Your task to perform on an android device: show emergency info Image 0: 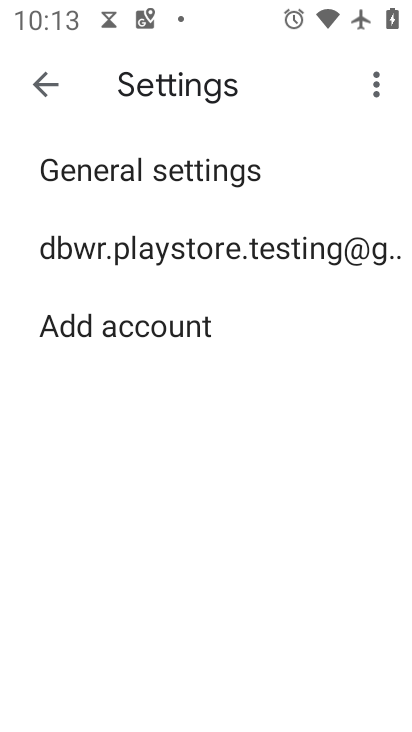
Step 0: press home button
Your task to perform on an android device: show emergency info Image 1: 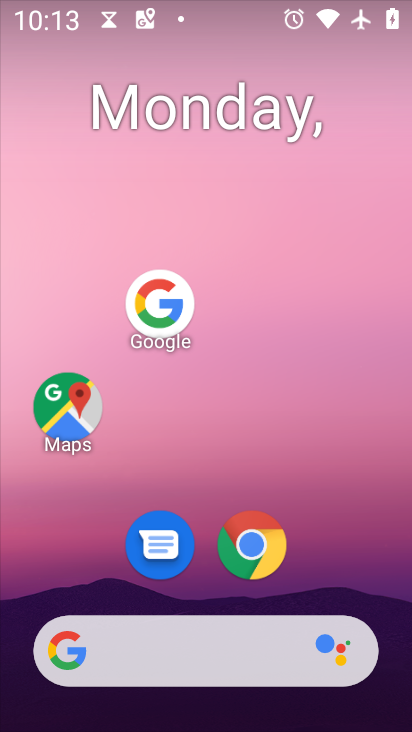
Step 1: drag from (165, 672) to (274, 66)
Your task to perform on an android device: show emergency info Image 2: 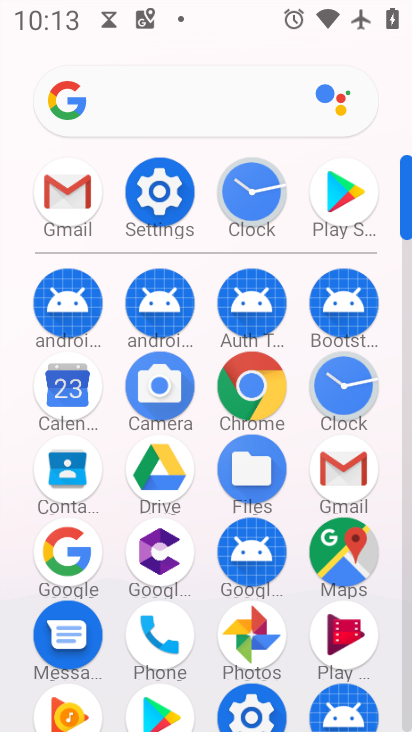
Step 2: click (166, 205)
Your task to perform on an android device: show emergency info Image 3: 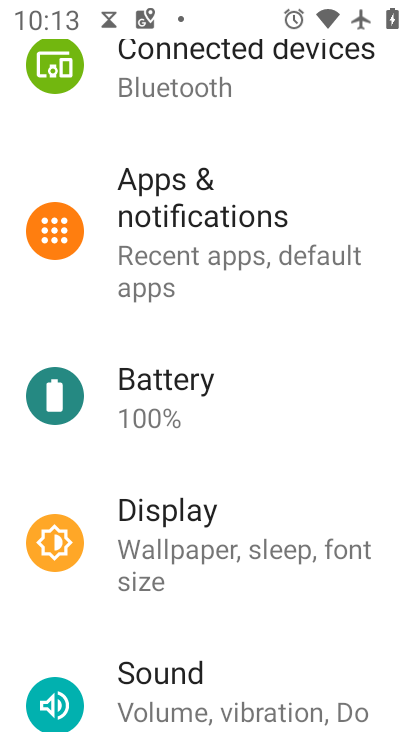
Step 3: drag from (282, 680) to (316, 49)
Your task to perform on an android device: show emergency info Image 4: 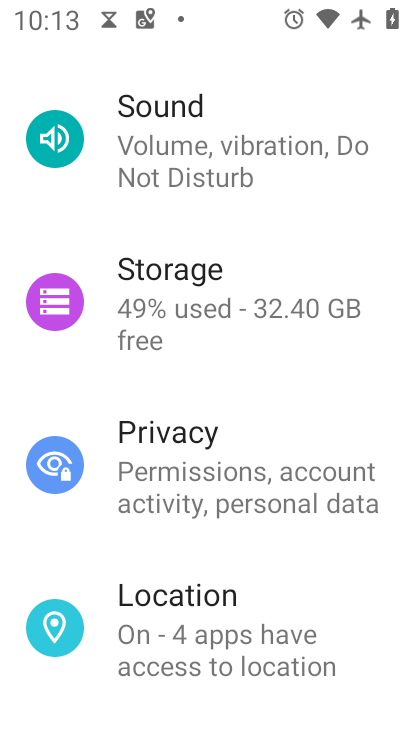
Step 4: drag from (257, 691) to (353, 166)
Your task to perform on an android device: show emergency info Image 5: 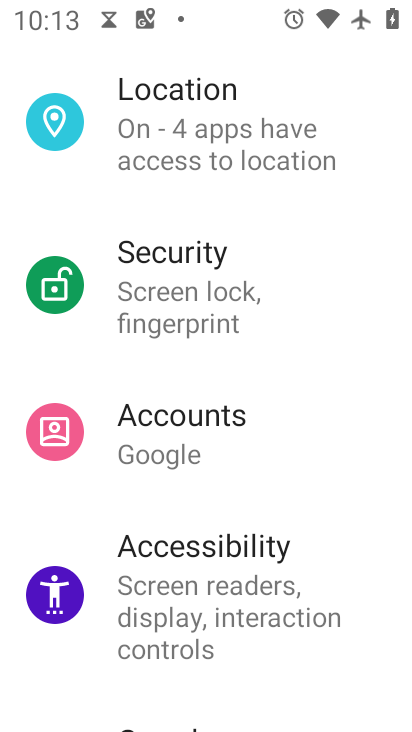
Step 5: drag from (293, 662) to (359, 157)
Your task to perform on an android device: show emergency info Image 6: 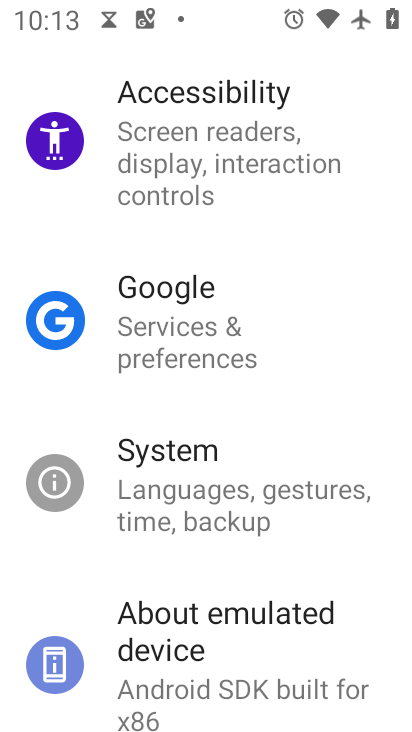
Step 6: drag from (219, 574) to (300, 343)
Your task to perform on an android device: show emergency info Image 7: 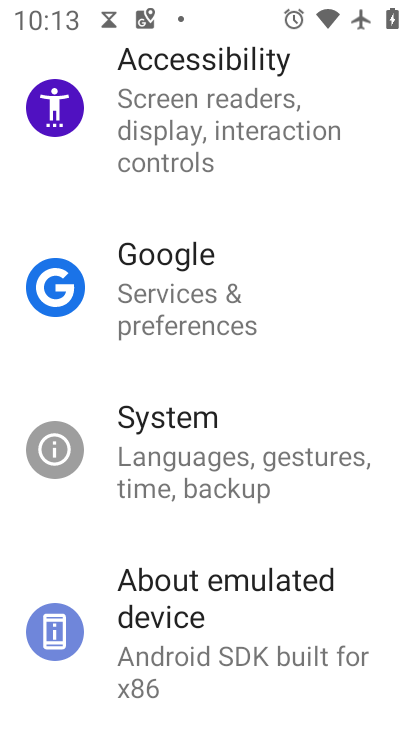
Step 7: click (199, 631)
Your task to perform on an android device: show emergency info Image 8: 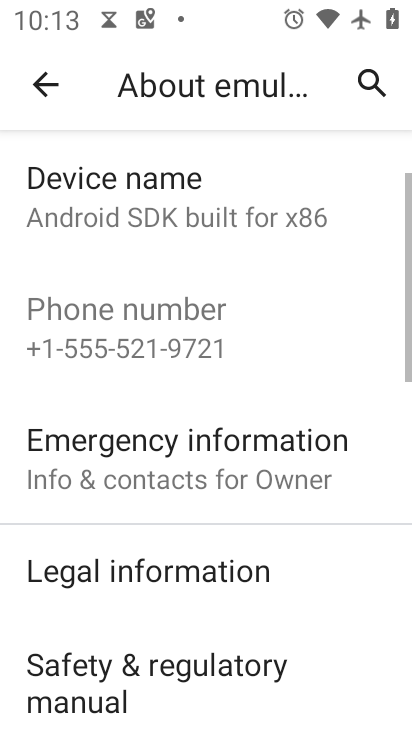
Step 8: click (209, 452)
Your task to perform on an android device: show emergency info Image 9: 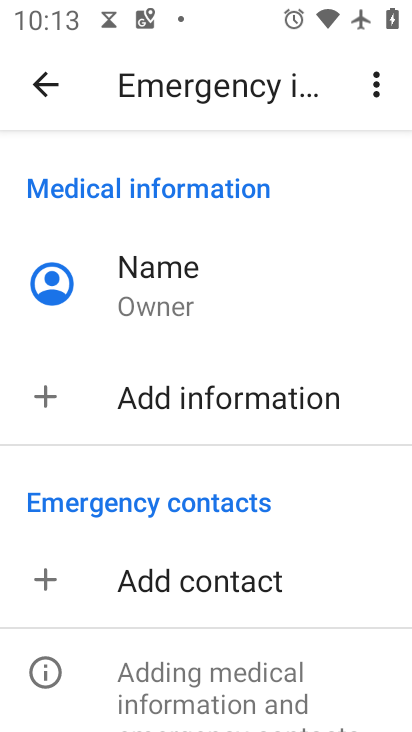
Step 9: task complete